Your task to perform on an android device: Open Maps and search for coffee Image 0: 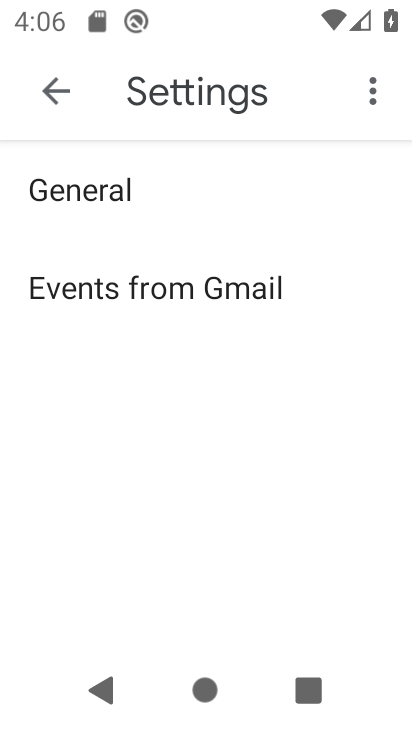
Step 0: press home button
Your task to perform on an android device: Open Maps and search for coffee Image 1: 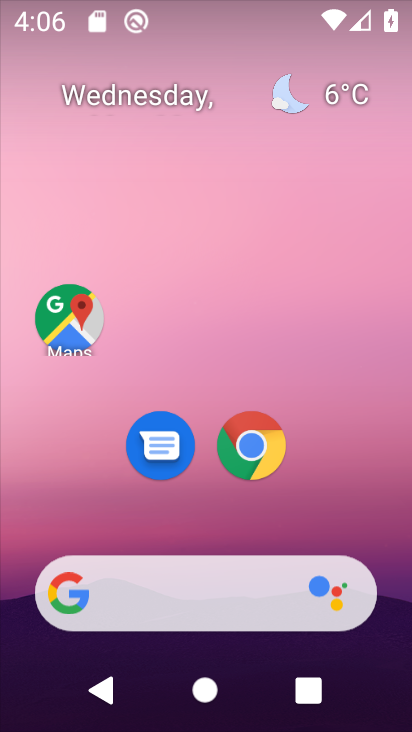
Step 1: click (51, 310)
Your task to perform on an android device: Open Maps and search for coffee Image 2: 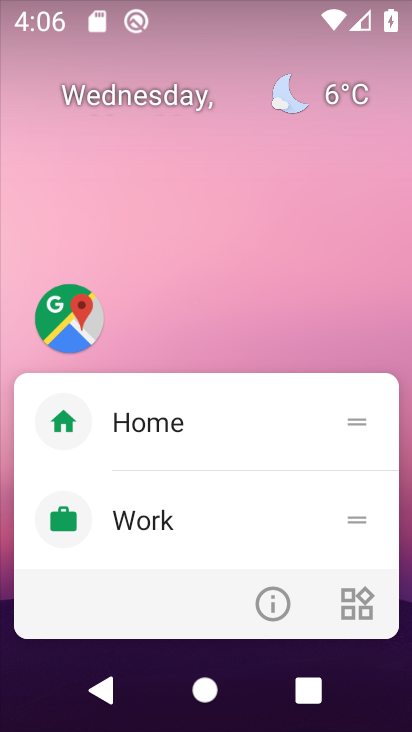
Step 2: click (96, 330)
Your task to perform on an android device: Open Maps and search for coffee Image 3: 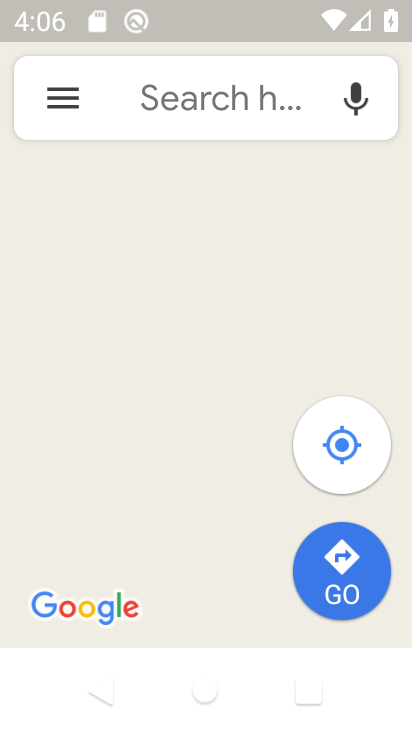
Step 3: click (156, 94)
Your task to perform on an android device: Open Maps and search for coffee Image 4: 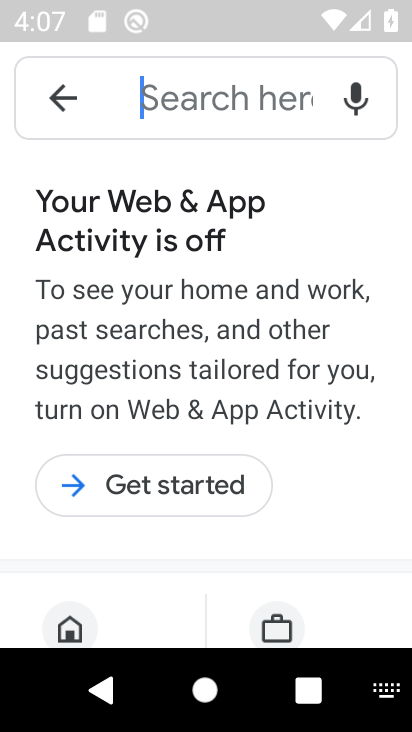
Step 4: type "coffee"
Your task to perform on an android device: Open Maps and search for coffee Image 5: 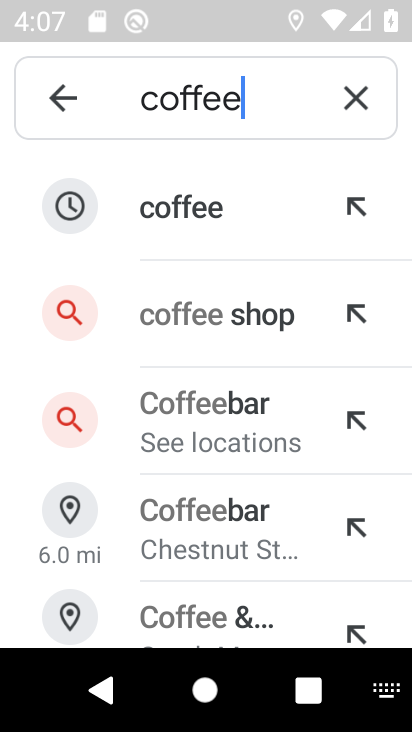
Step 5: click (200, 220)
Your task to perform on an android device: Open Maps and search for coffee Image 6: 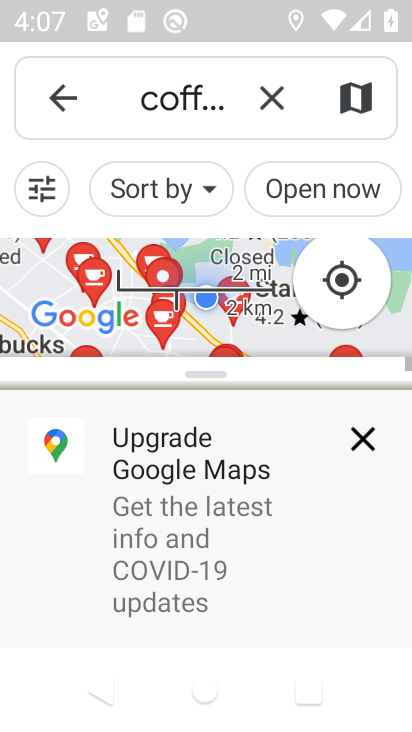
Step 6: task complete